Your task to perform on an android device: Show me recent news Image 0: 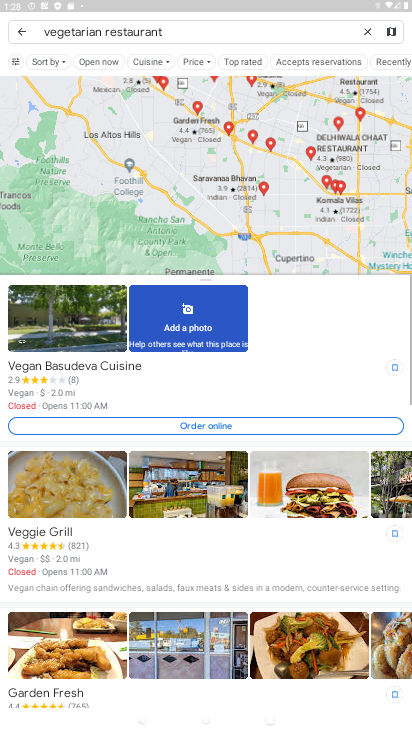
Step 0: drag from (295, 603) to (275, 299)
Your task to perform on an android device: Show me recent news Image 1: 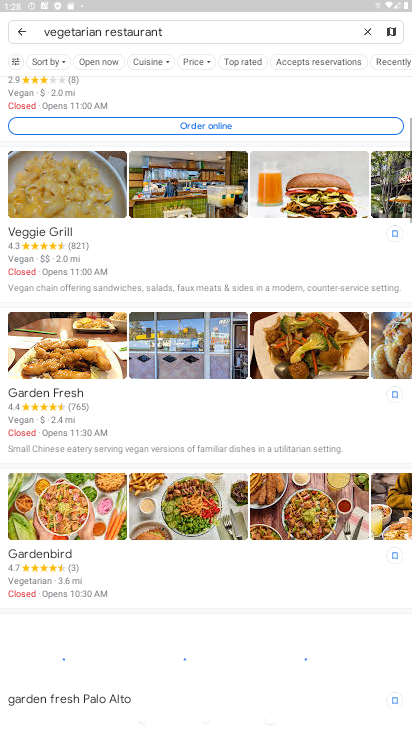
Step 1: press home button
Your task to perform on an android device: Show me recent news Image 2: 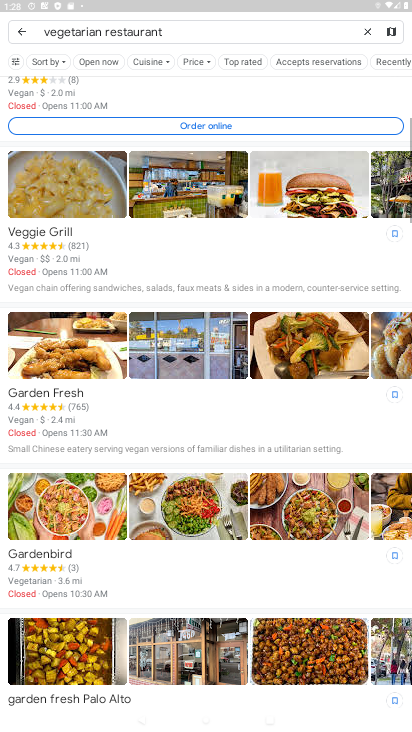
Step 2: drag from (327, 693) to (282, 152)
Your task to perform on an android device: Show me recent news Image 3: 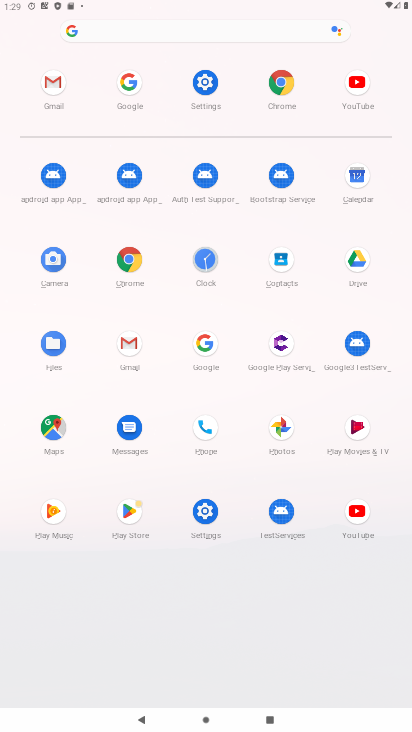
Step 3: click (205, 353)
Your task to perform on an android device: Show me recent news Image 4: 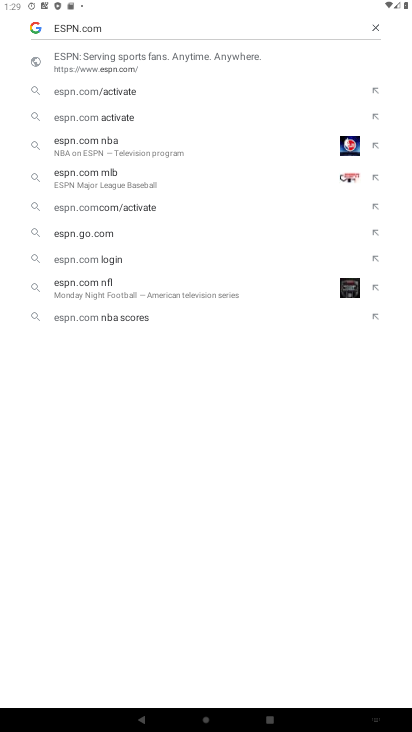
Step 4: click (378, 29)
Your task to perform on an android device: Show me recent news Image 5: 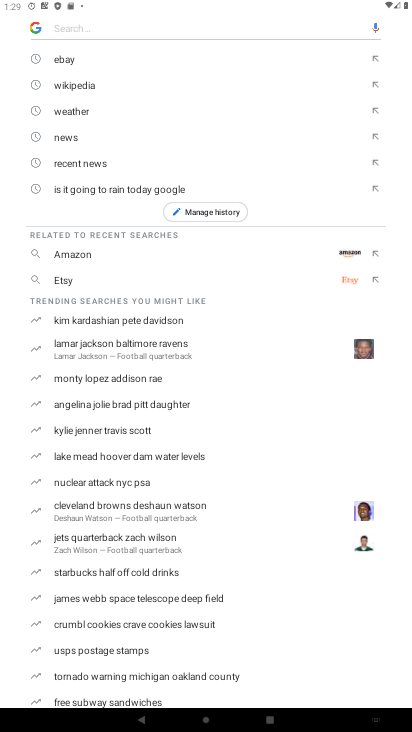
Step 5: type "recent news"
Your task to perform on an android device: Show me recent news Image 6: 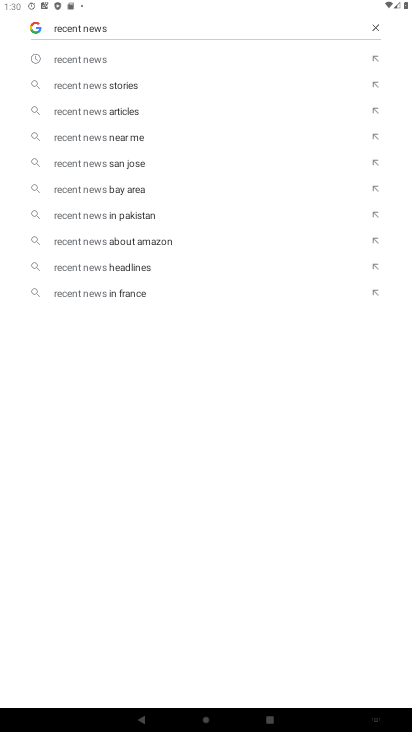
Step 6: click (69, 68)
Your task to perform on an android device: Show me recent news Image 7: 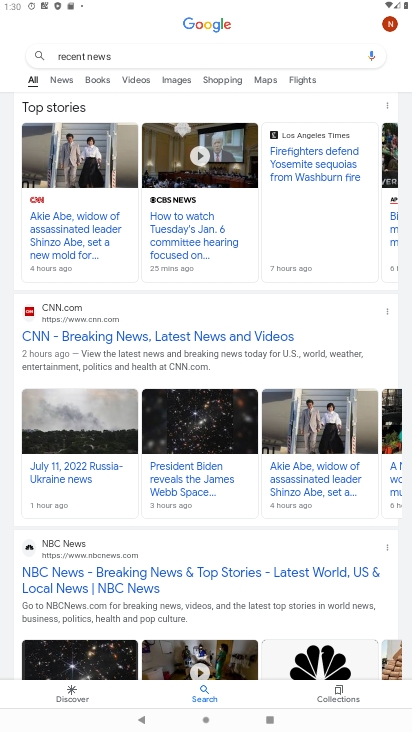
Step 7: task complete